Your task to perform on an android device: Go to Android settings Image 0: 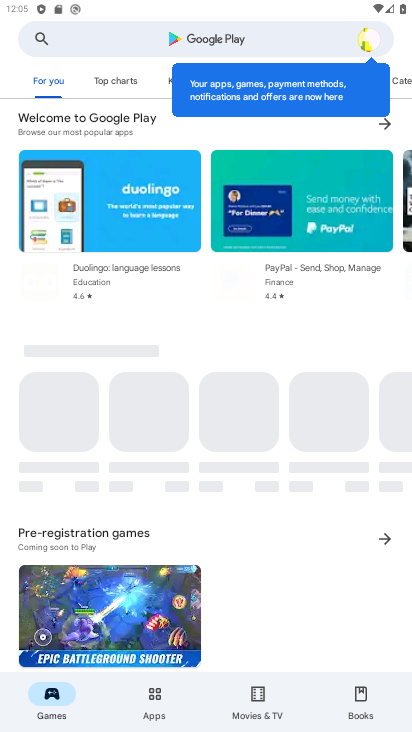
Step 0: press home button
Your task to perform on an android device: Go to Android settings Image 1: 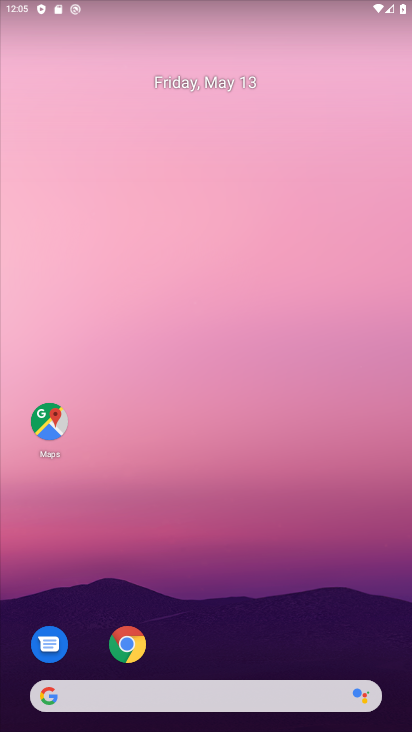
Step 1: drag from (231, 575) to (217, 79)
Your task to perform on an android device: Go to Android settings Image 2: 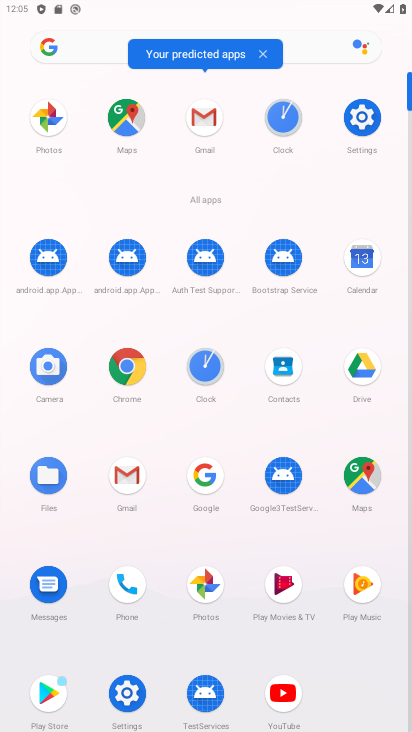
Step 2: click (364, 119)
Your task to perform on an android device: Go to Android settings Image 3: 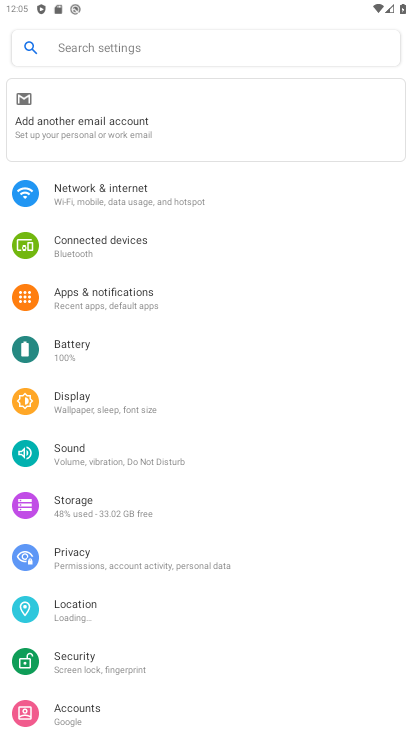
Step 3: drag from (316, 578) to (289, 177)
Your task to perform on an android device: Go to Android settings Image 4: 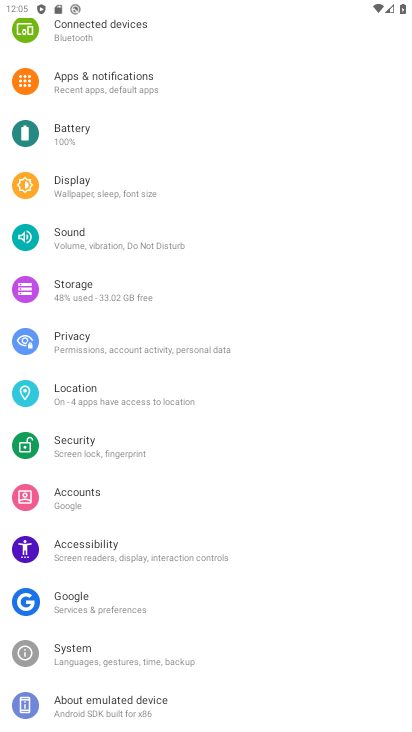
Step 4: click (171, 705)
Your task to perform on an android device: Go to Android settings Image 5: 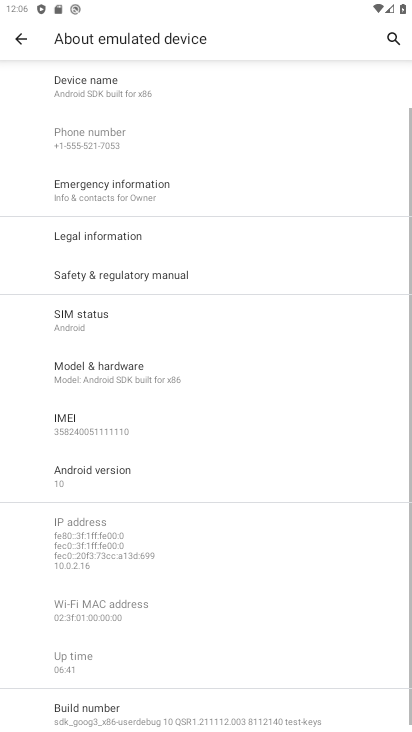
Step 5: click (100, 488)
Your task to perform on an android device: Go to Android settings Image 6: 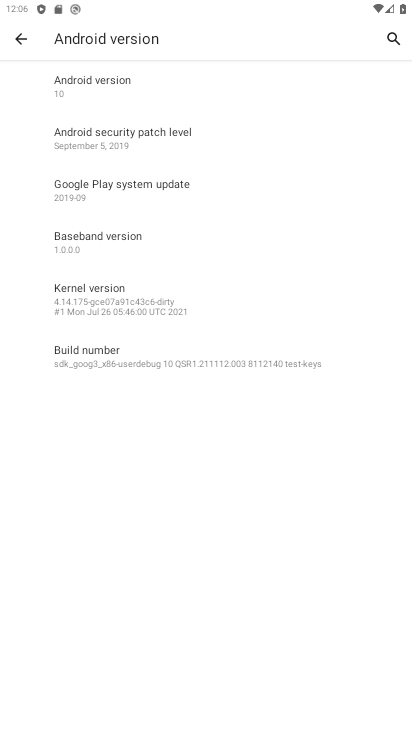
Step 6: task complete